Your task to perform on an android device: Open location settings Image 0: 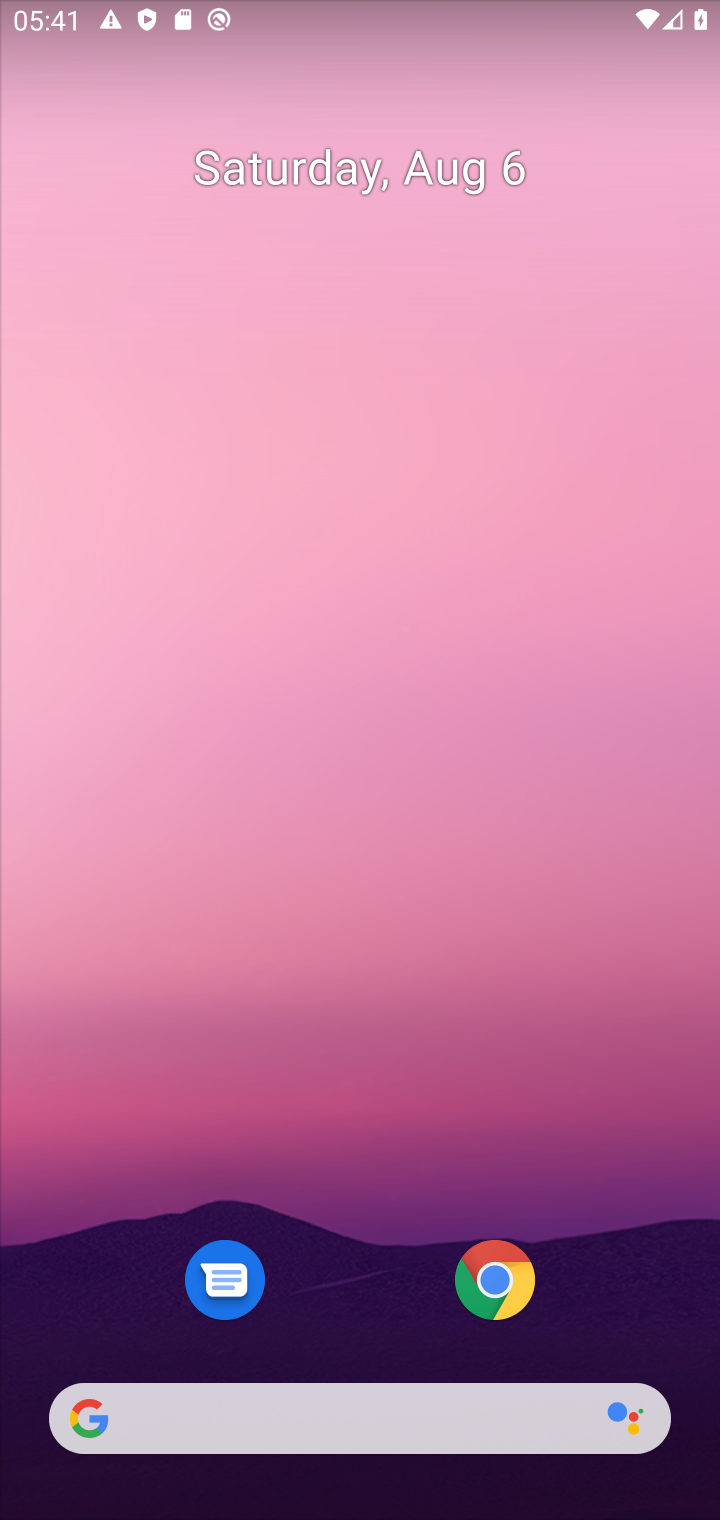
Step 0: drag from (354, 1466) to (366, 380)
Your task to perform on an android device: Open location settings Image 1: 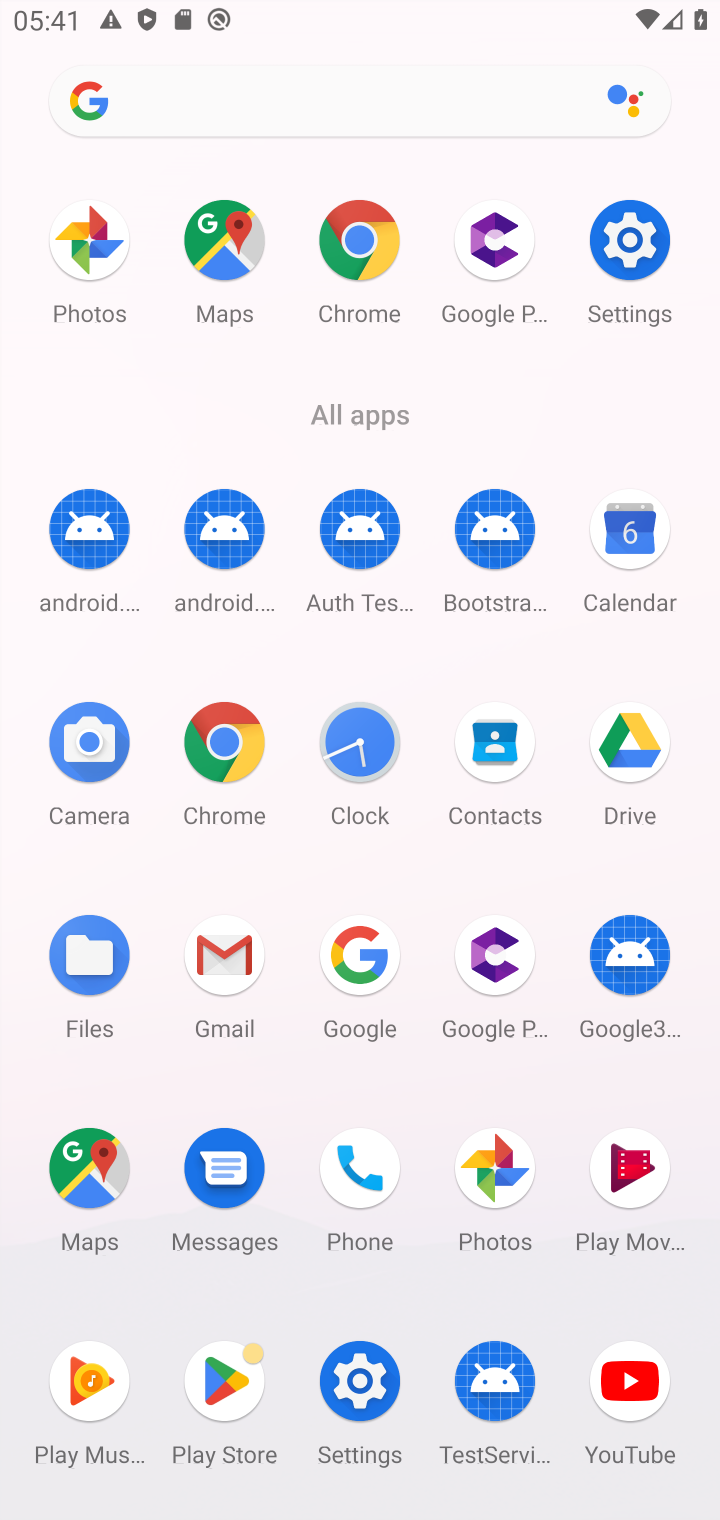
Step 1: click (344, 1366)
Your task to perform on an android device: Open location settings Image 2: 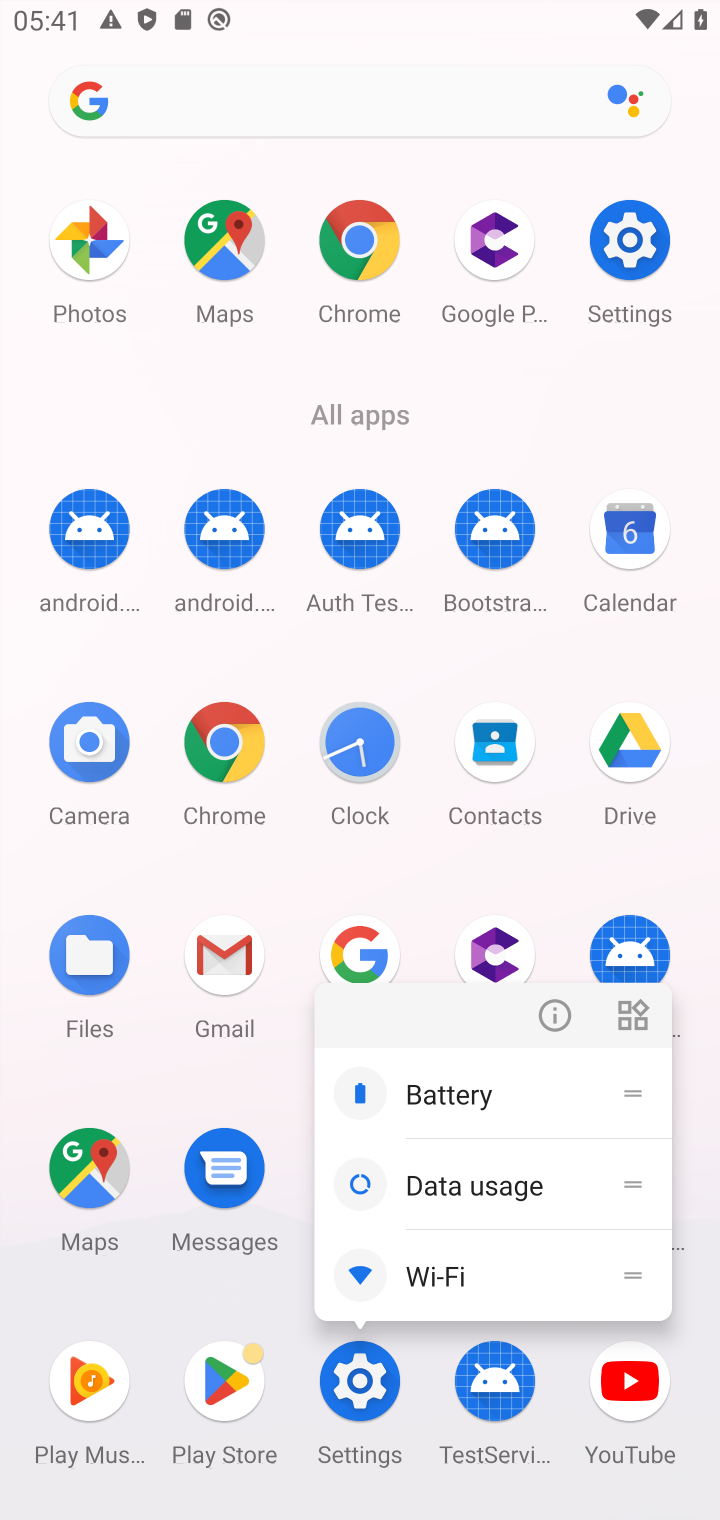
Step 2: click (344, 1366)
Your task to perform on an android device: Open location settings Image 3: 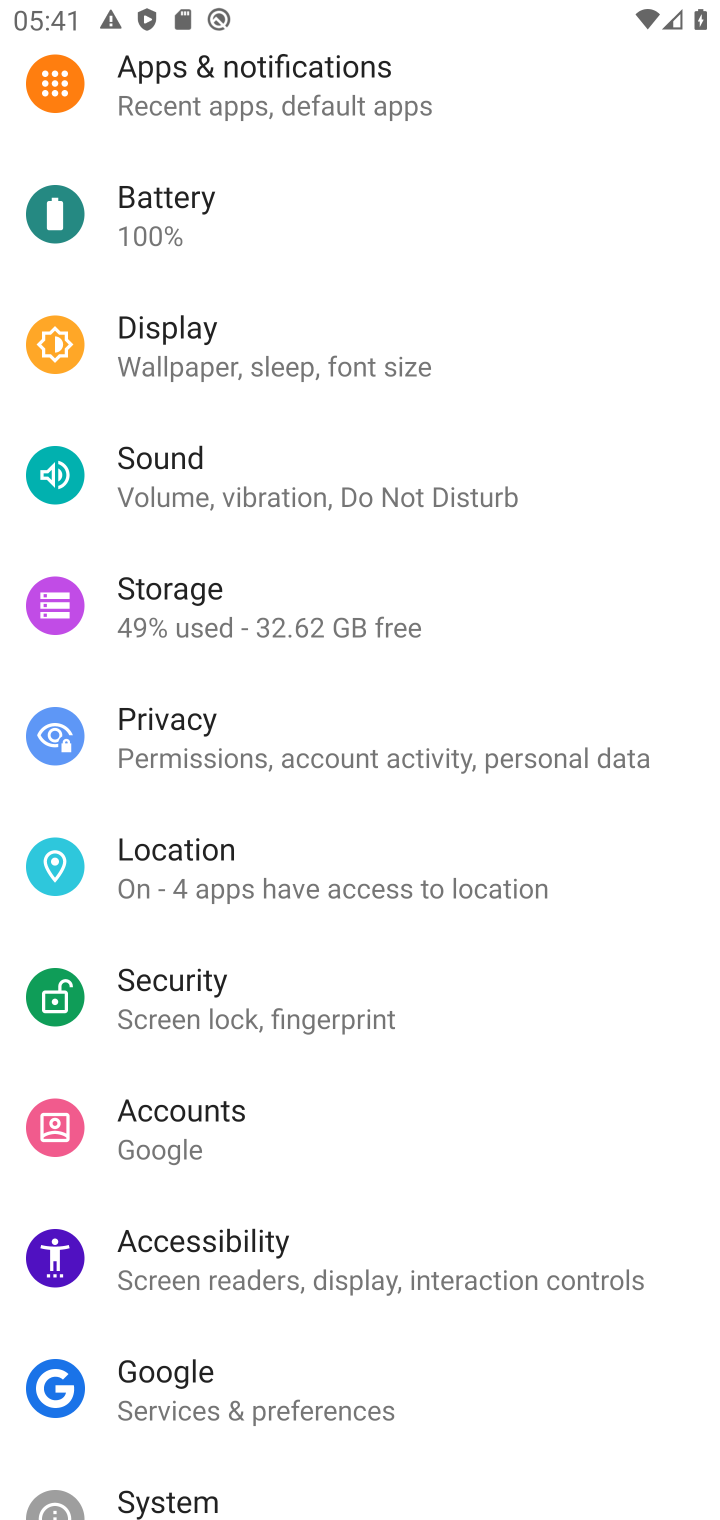
Step 3: click (173, 835)
Your task to perform on an android device: Open location settings Image 4: 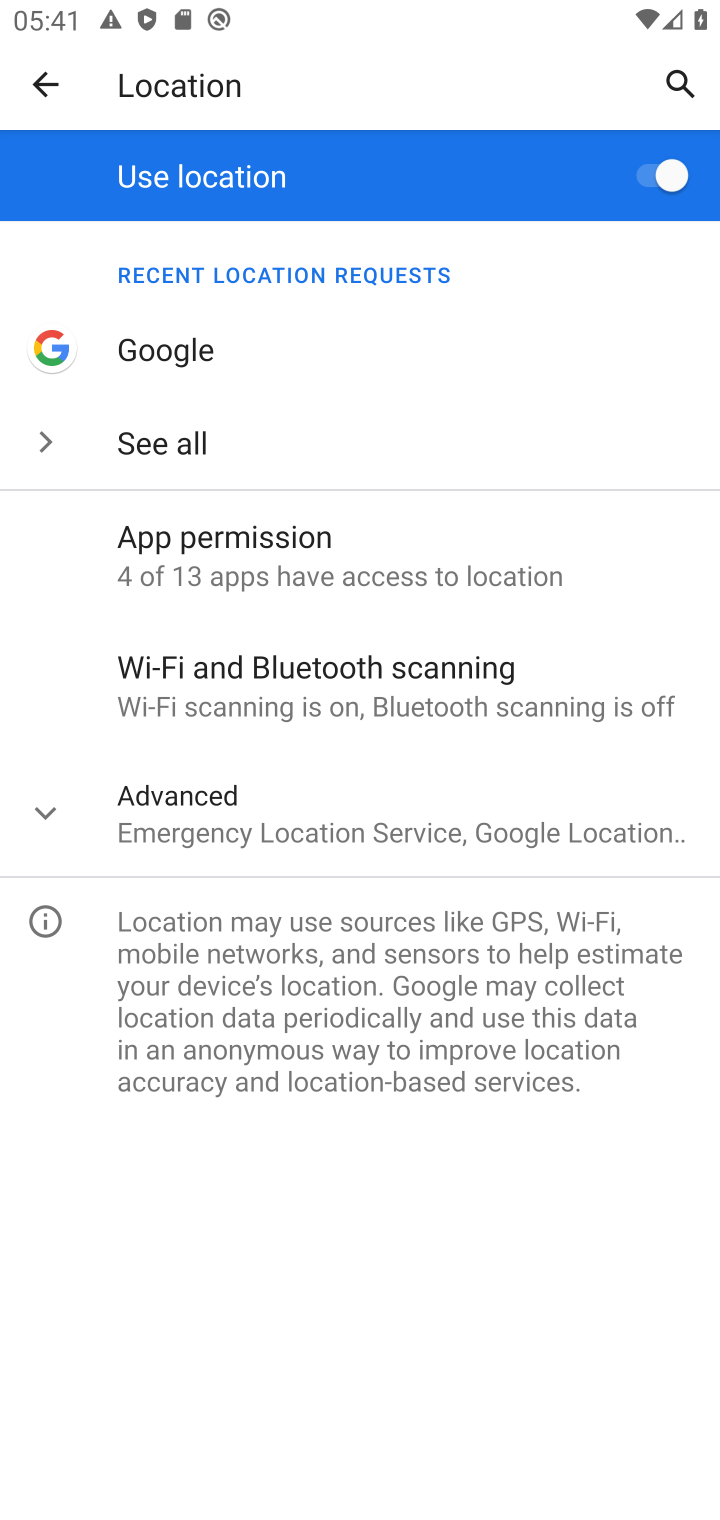
Step 4: task complete